Your task to perform on an android device: Go to internet settings Image 0: 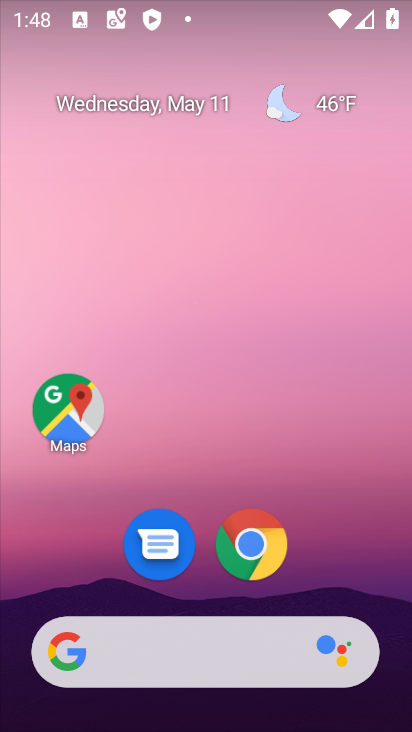
Step 0: drag from (389, 624) to (289, 170)
Your task to perform on an android device: Go to internet settings Image 1: 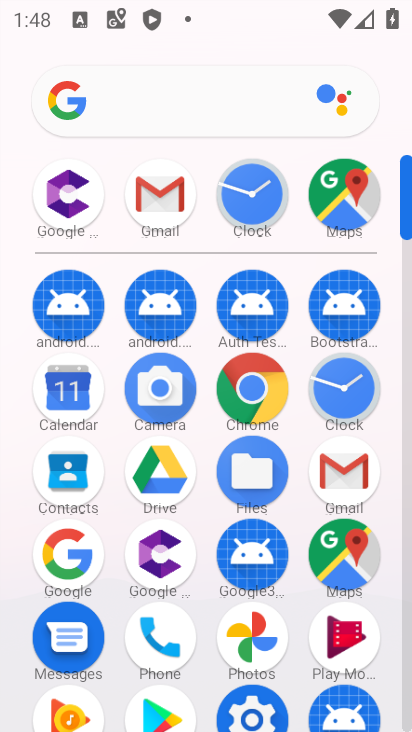
Step 1: click (404, 707)
Your task to perform on an android device: Go to internet settings Image 2: 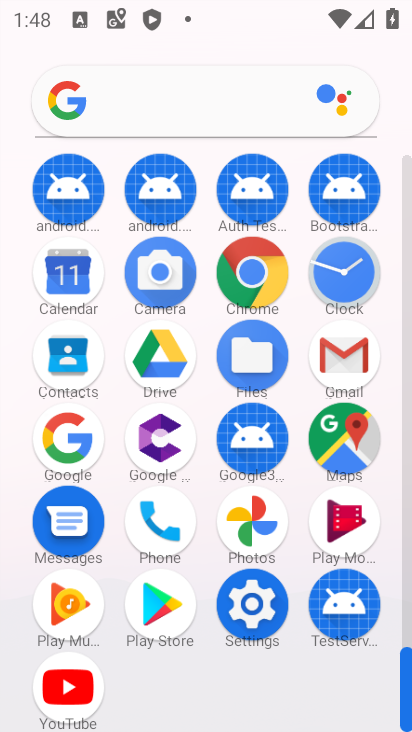
Step 2: click (250, 600)
Your task to perform on an android device: Go to internet settings Image 3: 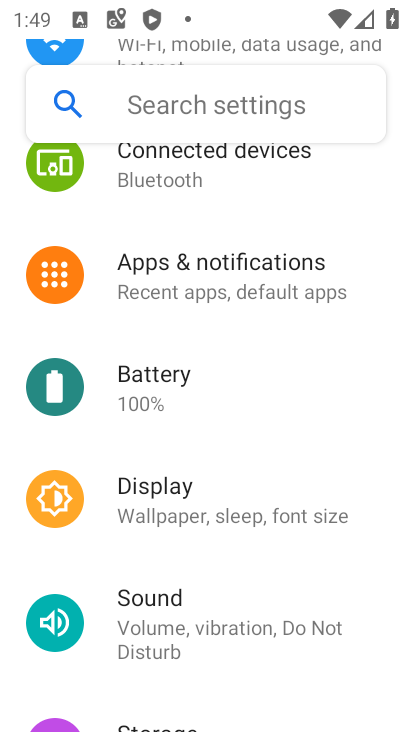
Step 3: drag from (322, 259) to (342, 574)
Your task to perform on an android device: Go to internet settings Image 4: 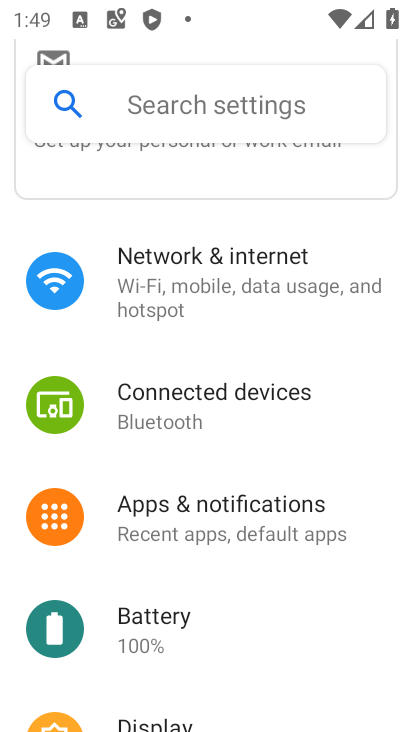
Step 4: click (152, 274)
Your task to perform on an android device: Go to internet settings Image 5: 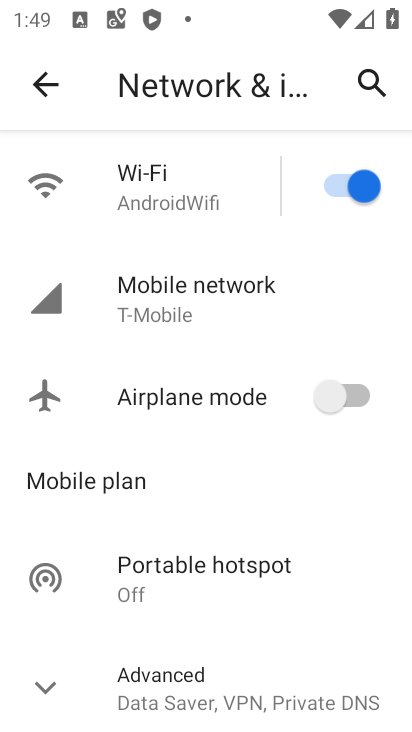
Step 5: click (152, 274)
Your task to perform on an android device: Go to internet settings Image 6: 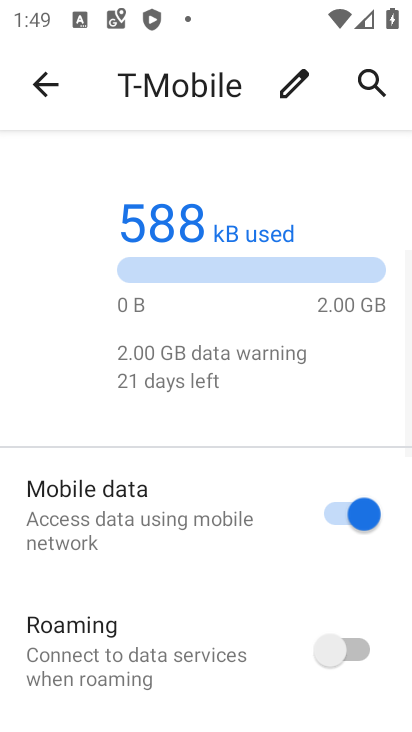
Step 6: drag from (244, 591) to (241, 401)
Your task to perform on an android device: Go to internet settings Image 7: 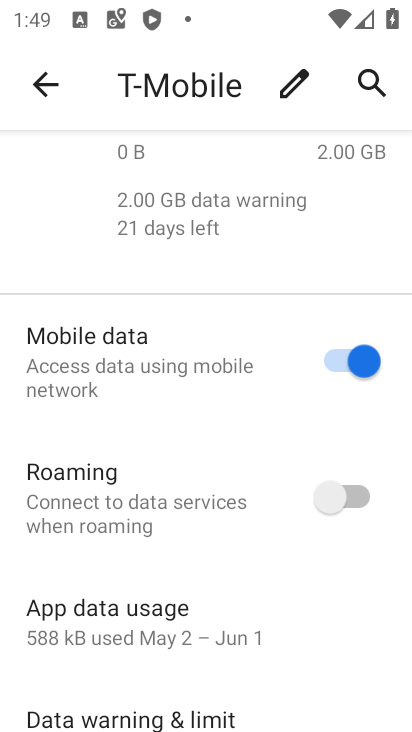
Step 7: drag from (274, 689) to (240, 285)
Your task to perform on an android device: Go to internet settings Image 8: 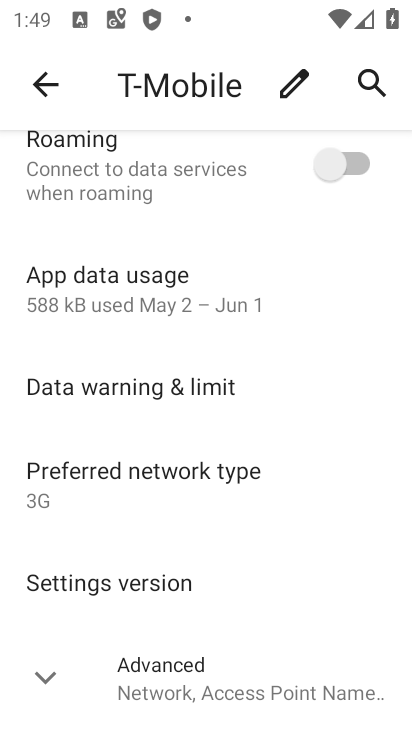
Step 8: click (49, 675)
Your task to perform on an android device: Go to internet settings Image 9: 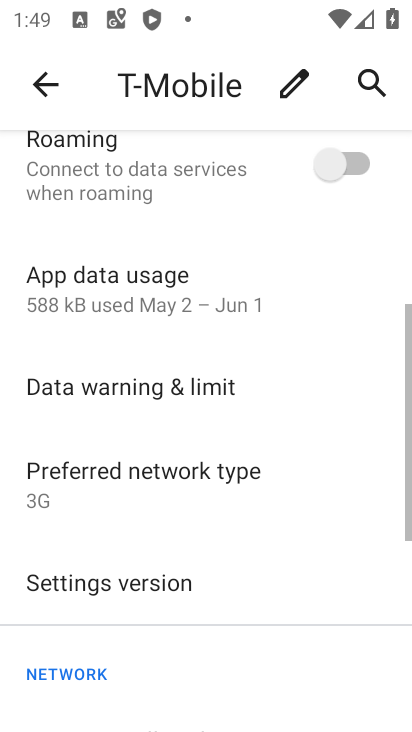
Step 9: task complete